Your task to perform on an android device: Search for flights from Helsinki to Seoul Image 0: 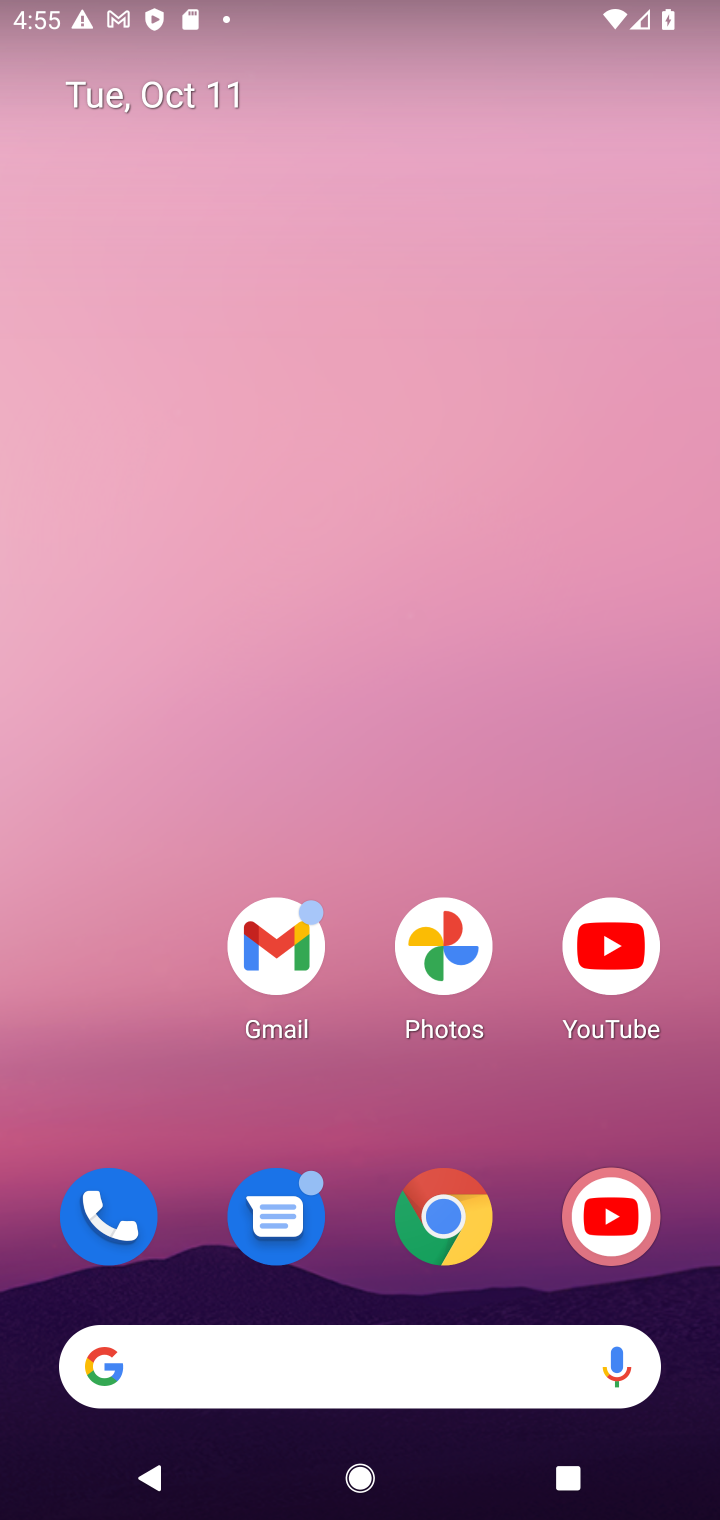
Step 0: click (451, 1222)
Your task to perform on an android device: Search for flights from Helsinki to Seoul Image 1: 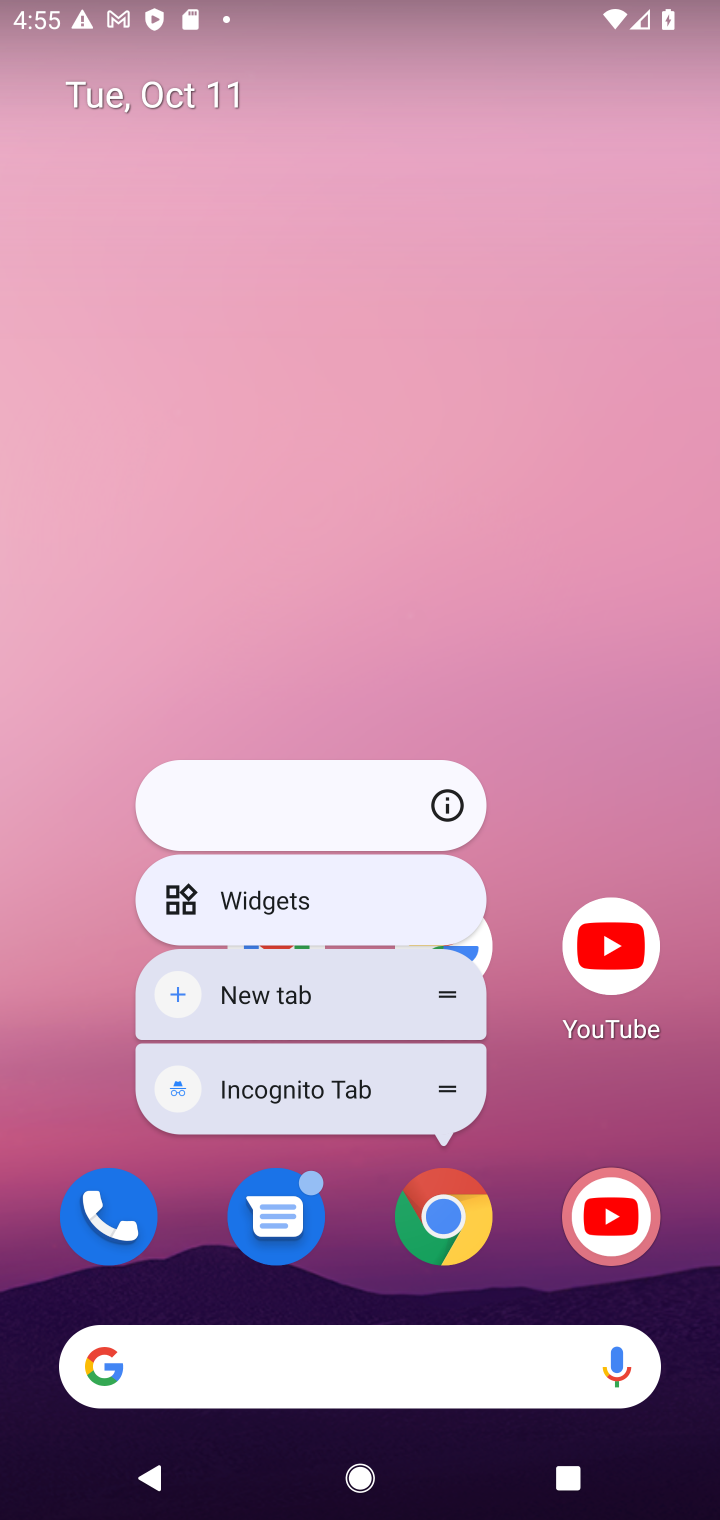
Step 1: click (451, 1222)
Your task to perform on an android device: Search for flights from Helsinki to Seoul Image 2: 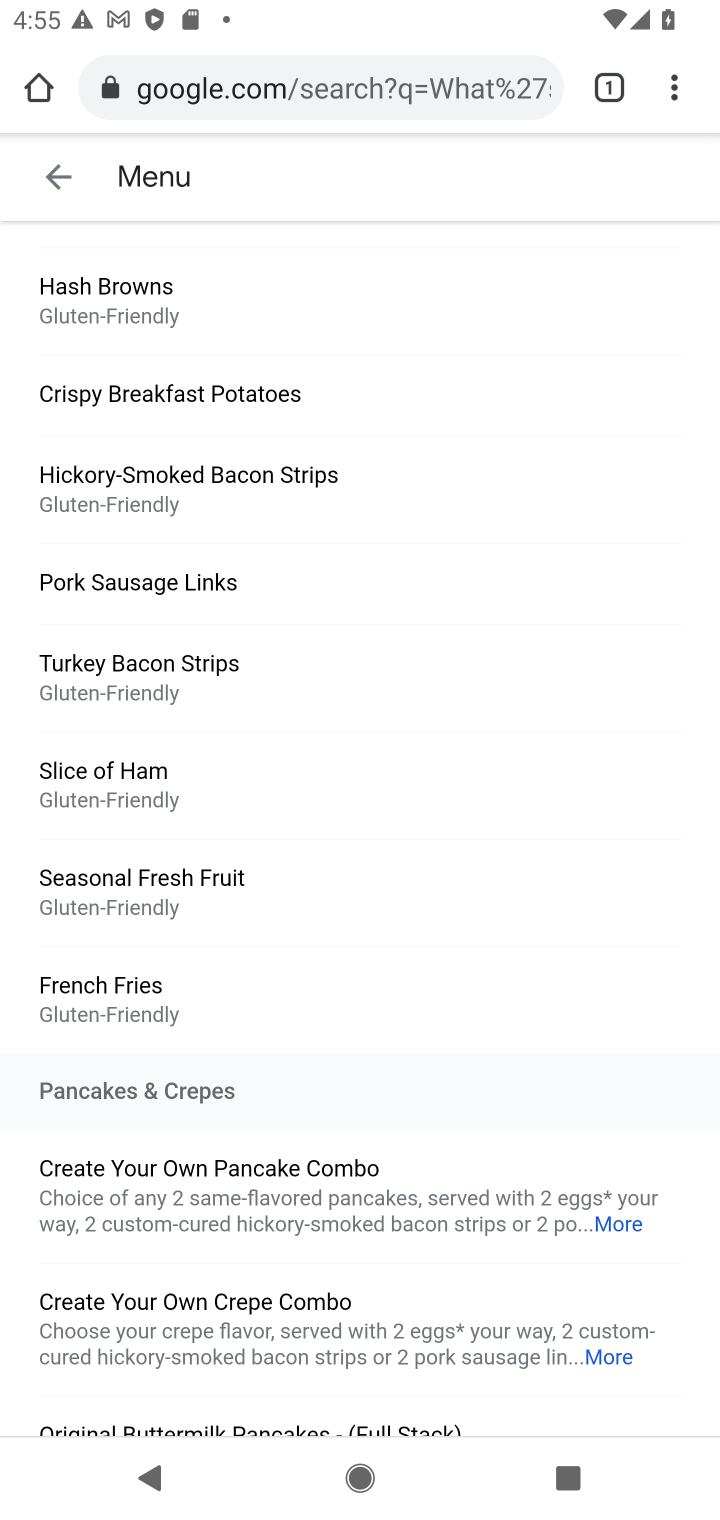
Step 2: click (279, 86)
Your task to perform on an android device: Search for flights from Helsinki to Seoul Image 3: 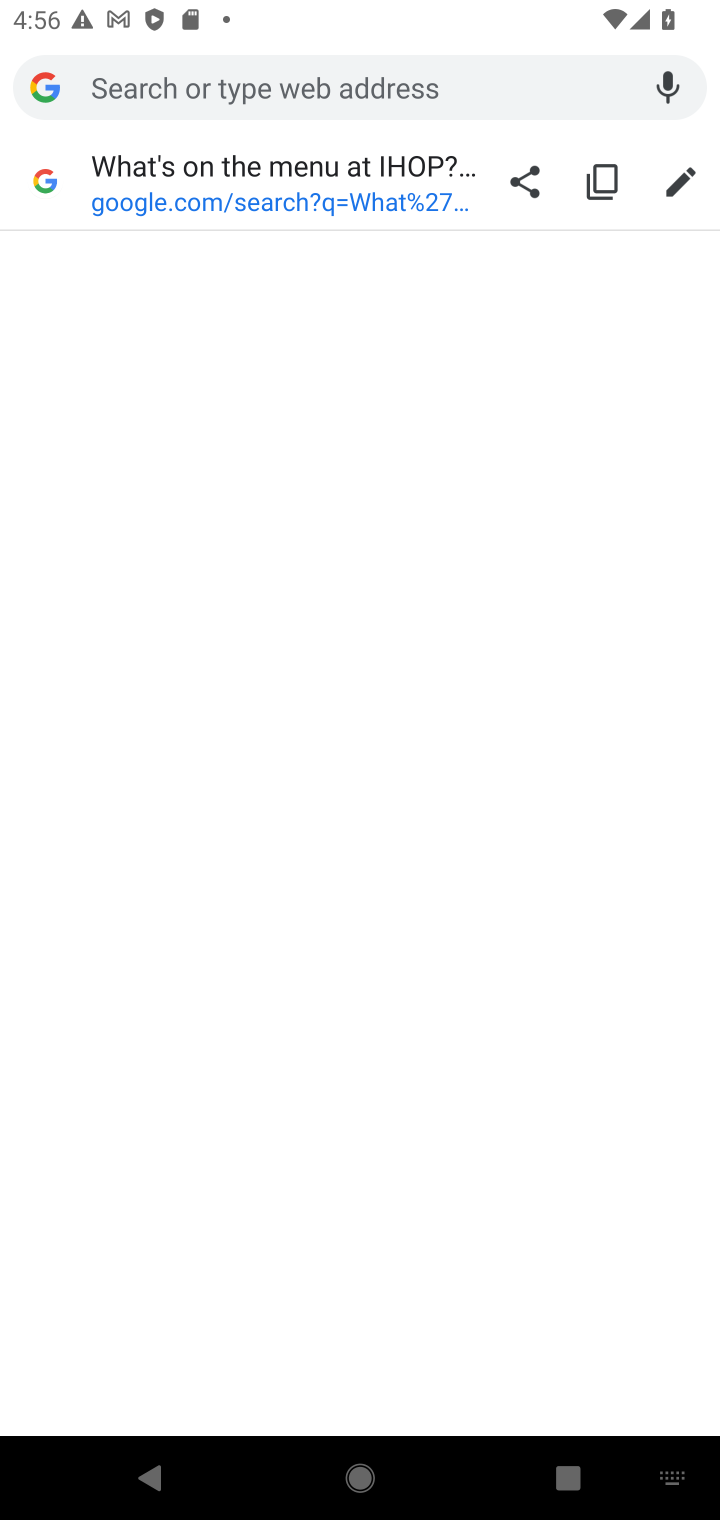
Step 3: type "flights from Helsinki to Seoul"
Your task to perform on an android device: Search for flights from Helsinki to Seoul Image 4: 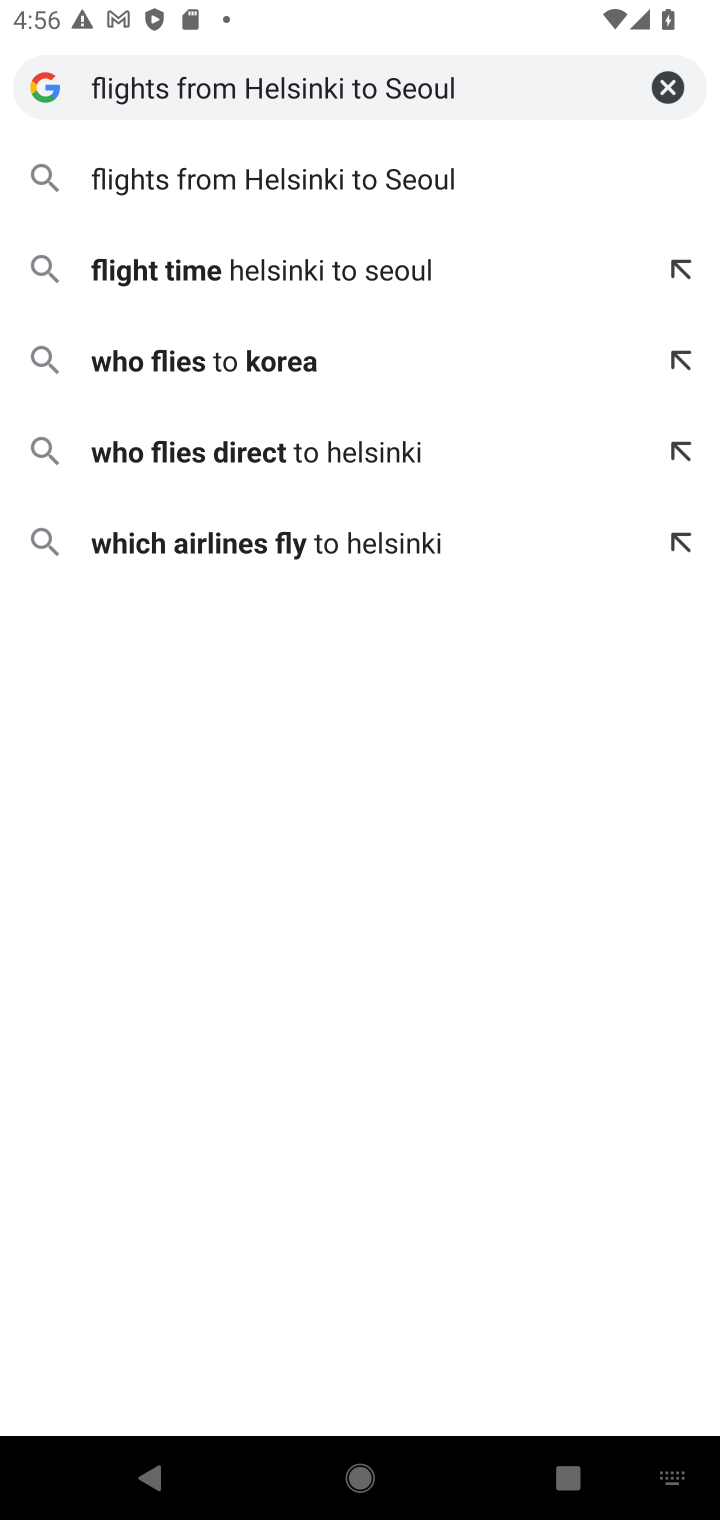
Step 4: click (296, 171)
Your task to perform on an android device: Search for flights from Helsinki to Seoul Image 5: 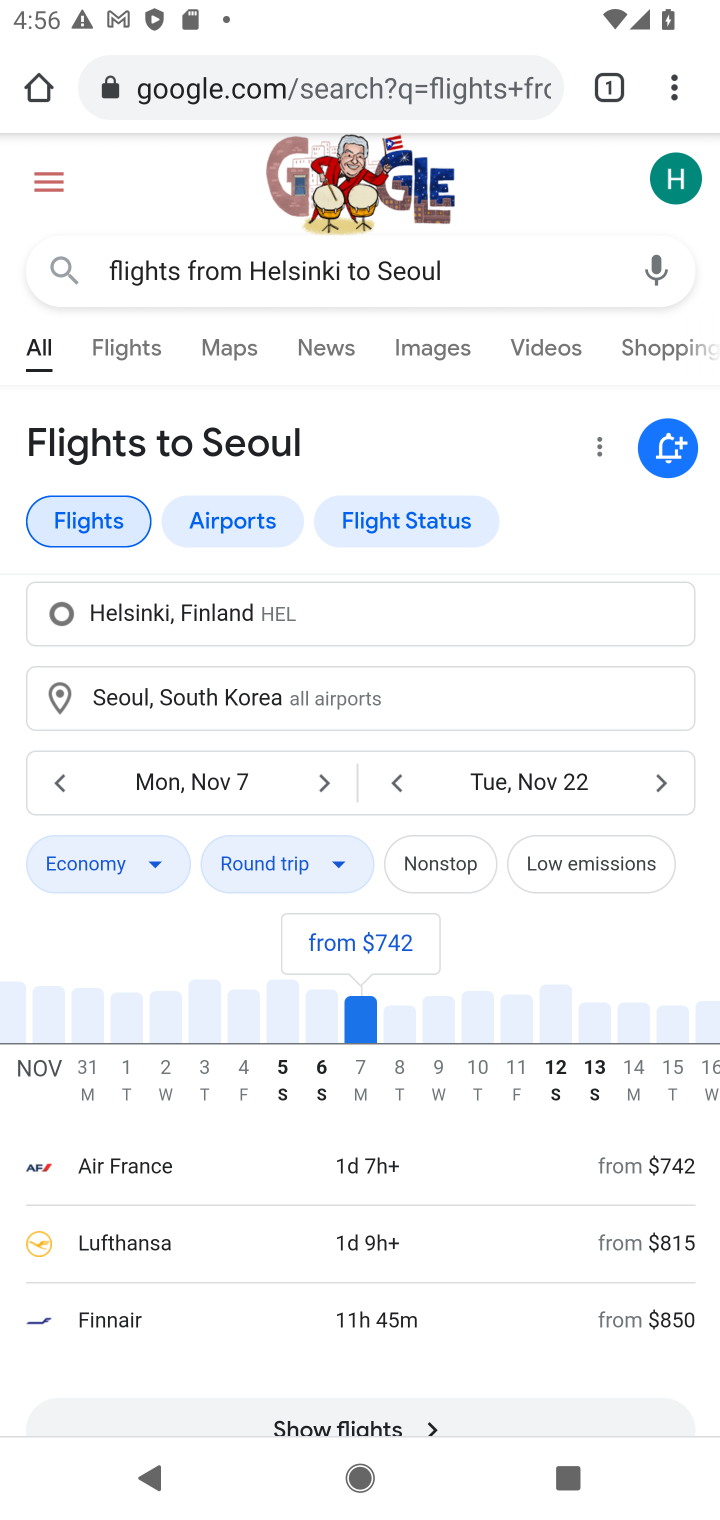
Step 5: task complete